Your task to perform on an android device: all mails in gmail Image 0: 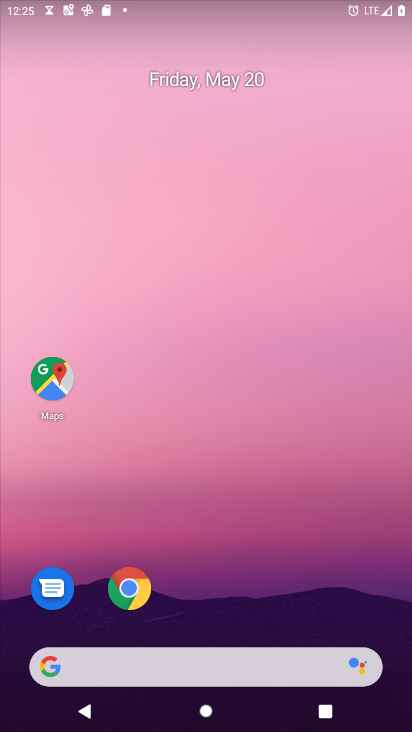
Step 0: drag from (284, 496) to (208, 50)
Your task to perform on an android device: all mails in gmail Image 1: 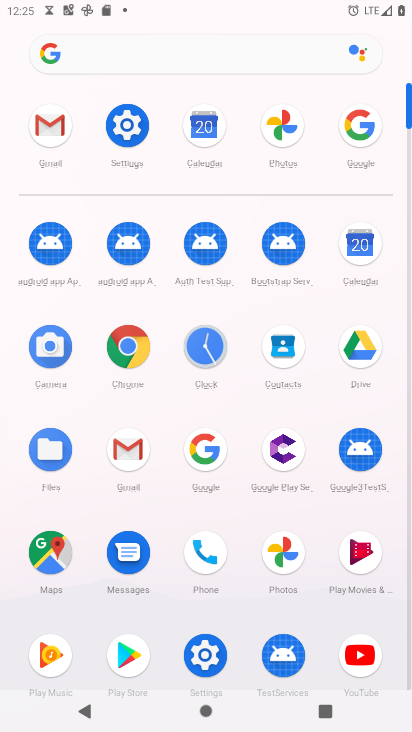
Step 1: click (132, 455)
Your task to perform on an android device: all mails in gmail Image 2: 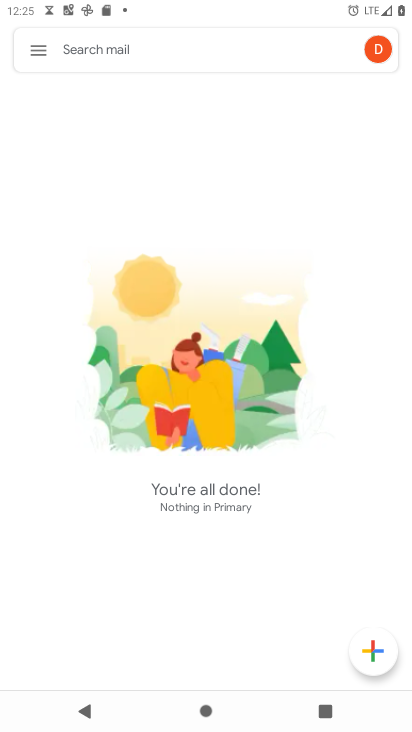
Step 2: click (42, 53)
Your task to perform on an android device: all mails in gmail Image 3: 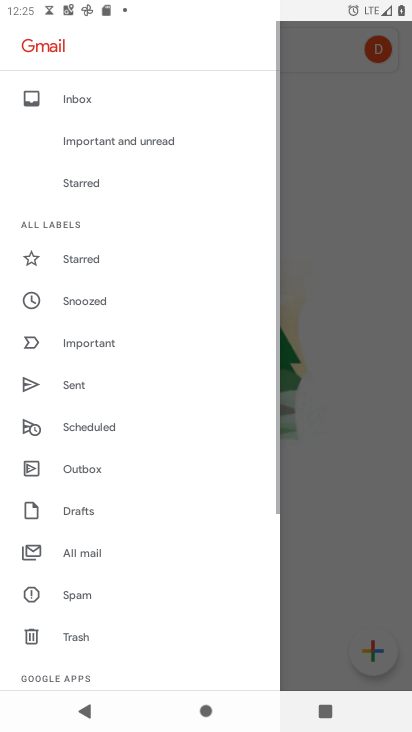
Step 3: click (121, 545)
Your task to perform on an android device: all mails in gmail Image 4: 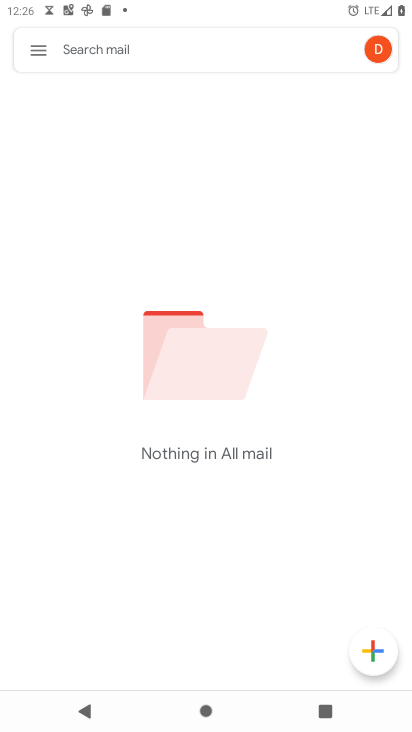
Step 4: task complete